Your task to perform on an android device: install app "Viber Messenger" Image 0: 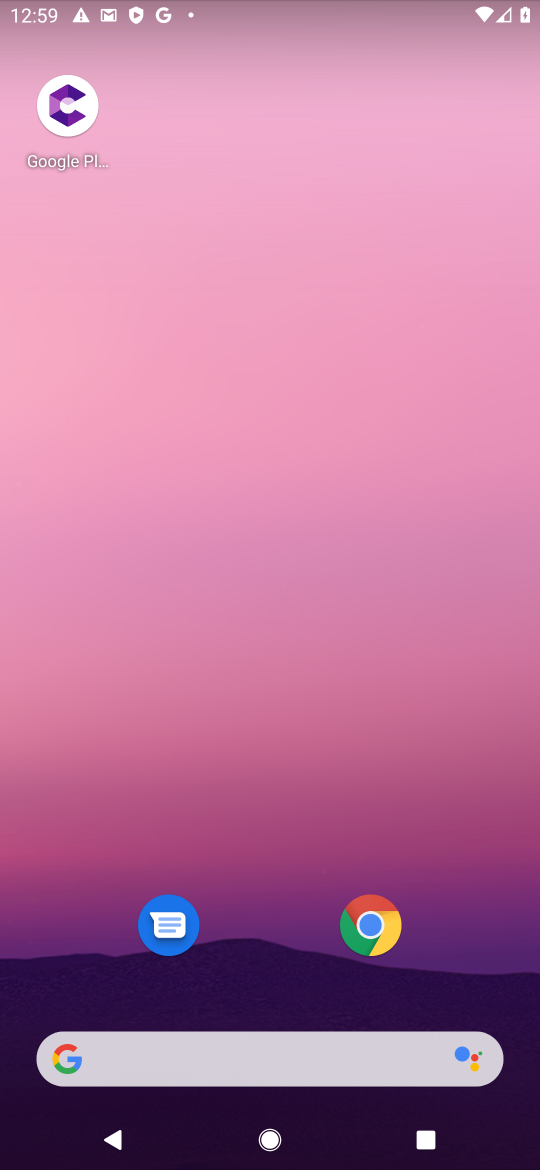
Step 0: drag from (367, 819) to (414, 1)
Your task to perform on an android device: install app "Viber Messenger" Image 1: 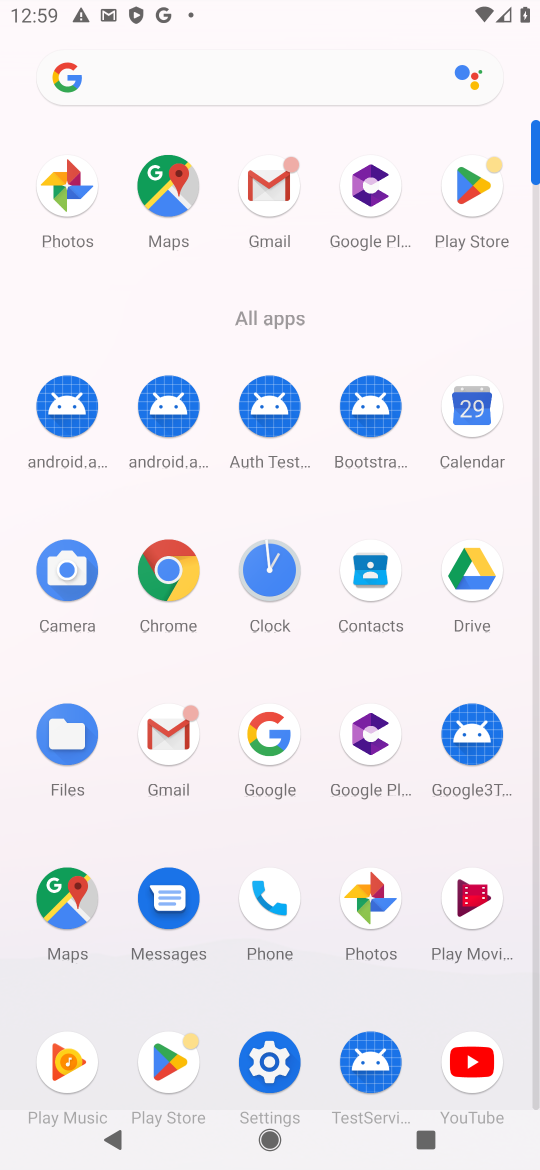
Step 1: click (178, 1063)
Your task to perform on an android device: install app "Viber Messenger" Image 2: 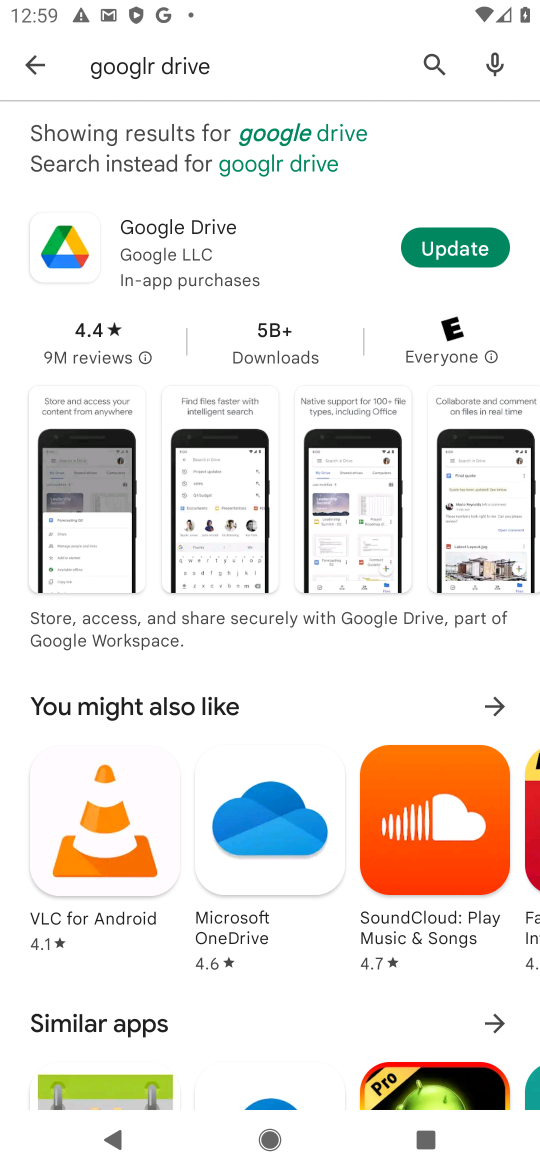
Step 2: click (428, 50)
Your task to perform on an android device: install app "Viber Messenger" Image 3: 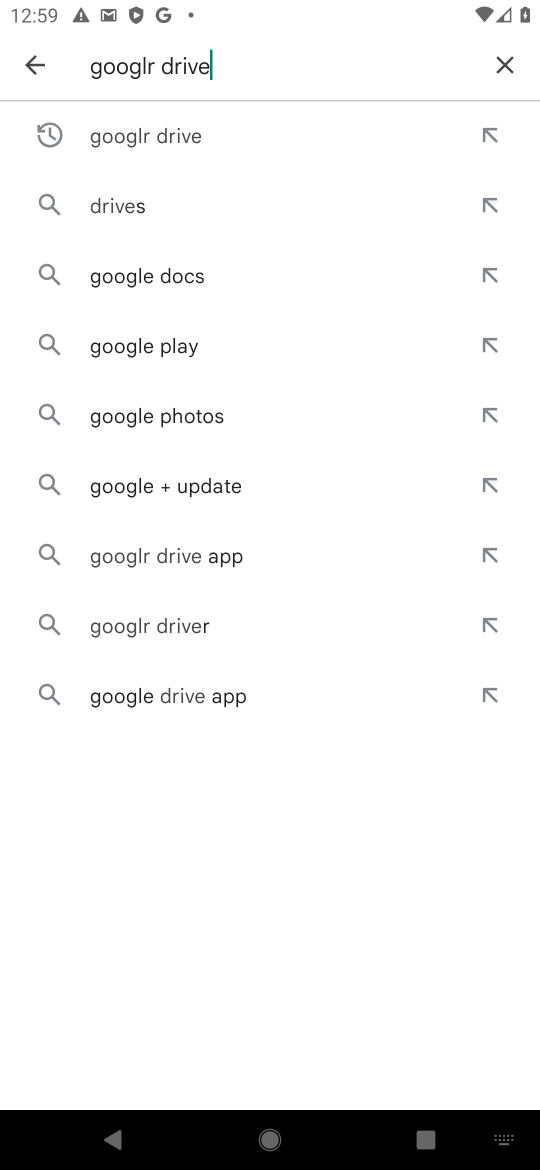
Step 3: click (505, 61)
Your task to perform on an android device: install app "Viber Messenger" Image 4: 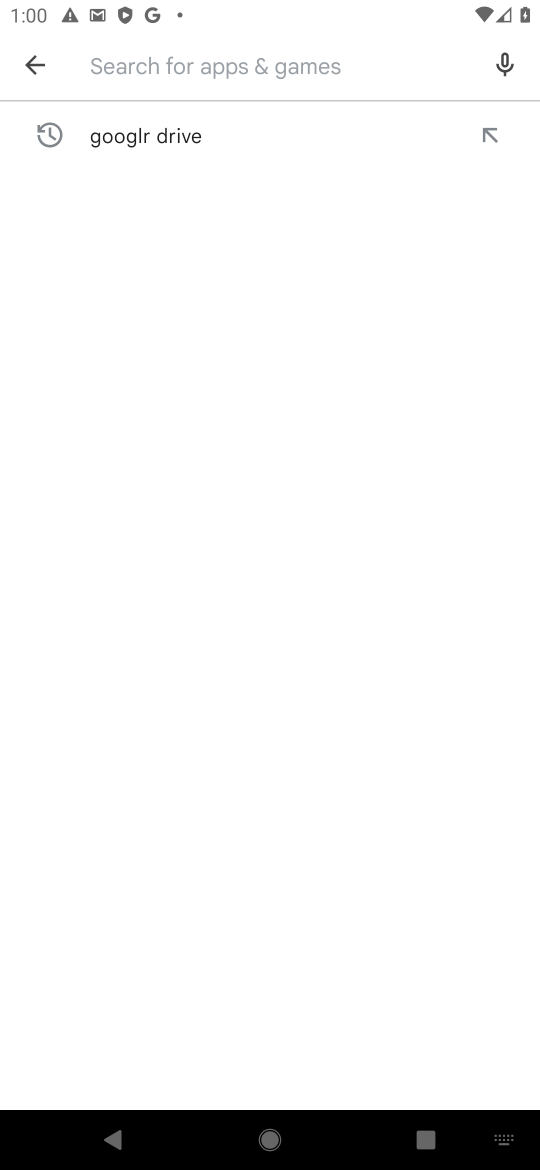
Step 4: type "viber messenger"
Your task to perform on an android device: install app "Viber Messenger" Image 5: 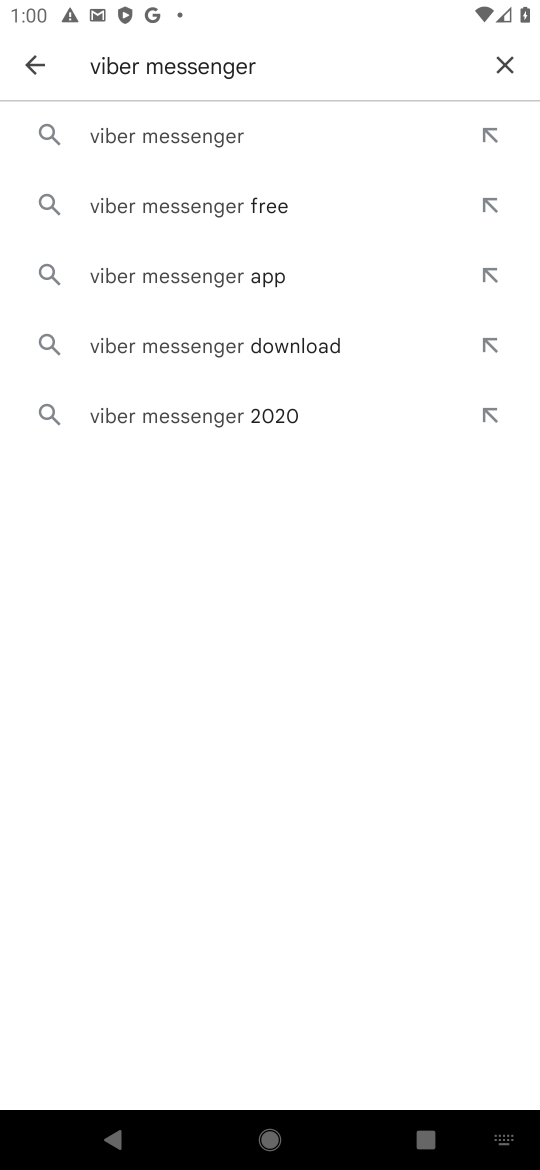
Step 5: click (246, 153)
Your task to perform on an android device: install app "Viber Messenger" Image 6: 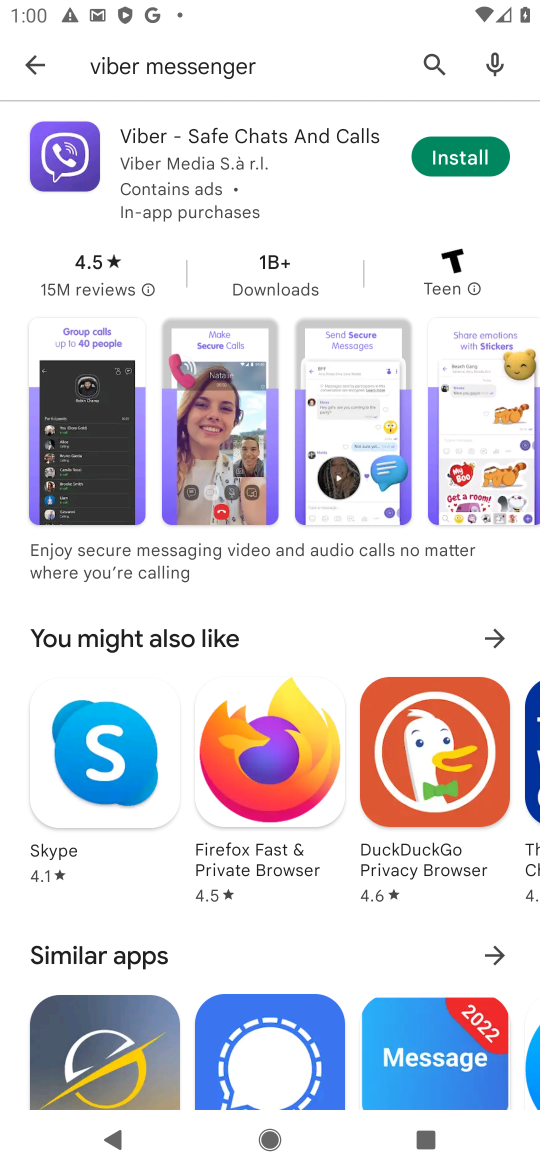
Step 6: click (488, 163)
Your task to perform on an android device: install app "Viber Messenger" Image 7: 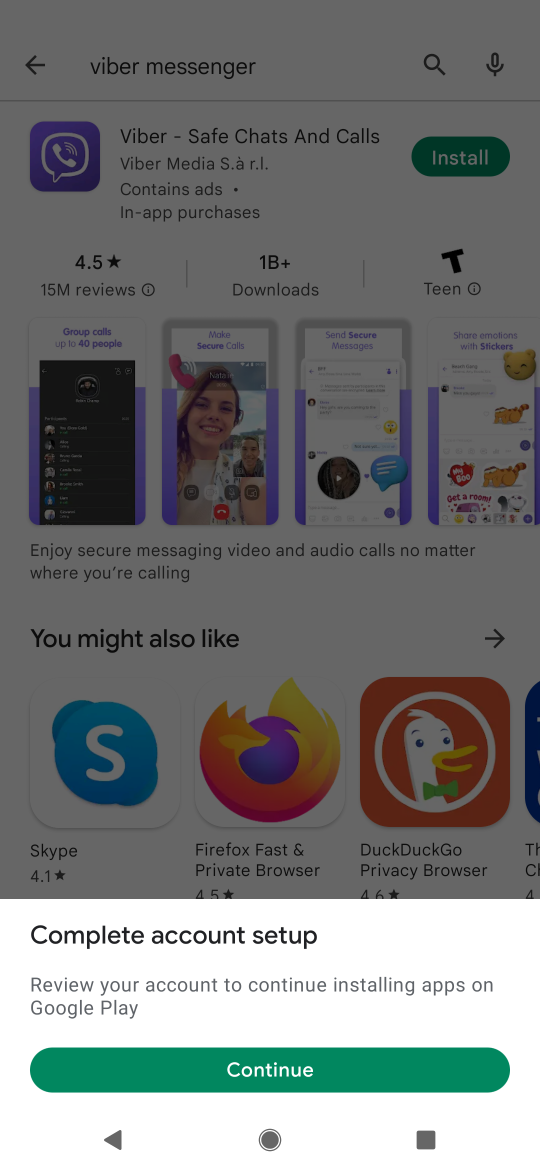
Step 7: click (336, 1068)
Your task to perform on an android device: install app "Viber Messenger" Image 8: 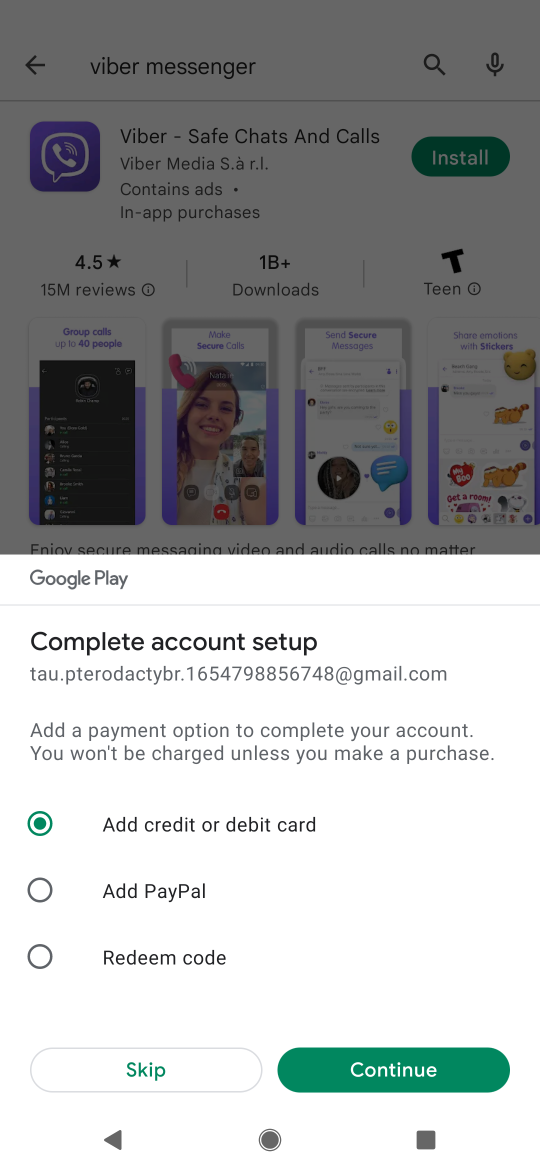
Step 8: click (182, 1065)
Your task to perform on an android device: install app "Viber Messenger" Image 9: 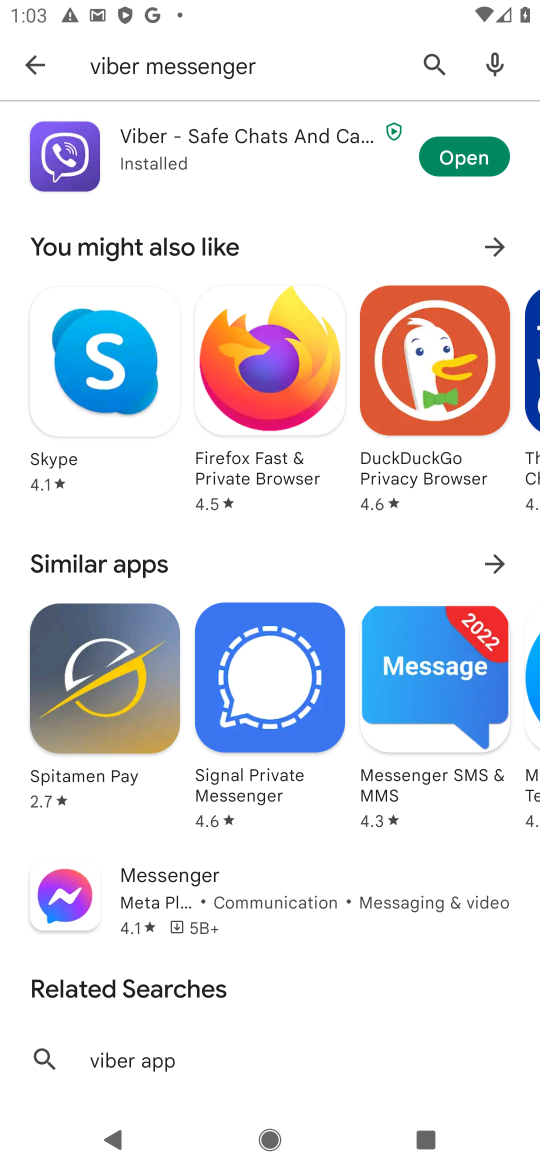
Step 9: task complete